Your task to perform on an android device: Show me productivity apps on the Play Store Image 0: 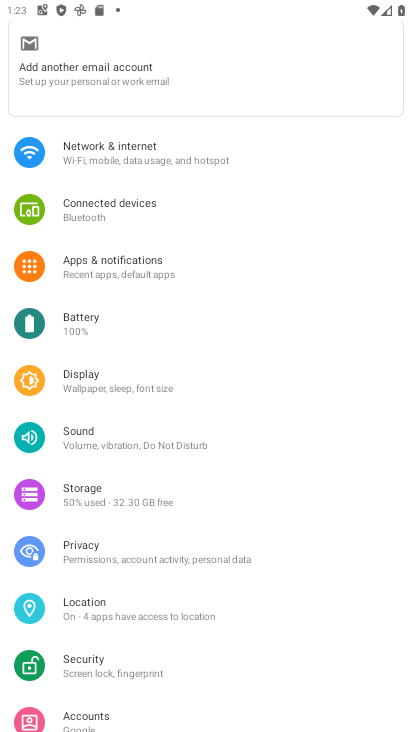
Step 0: press home button
Your task to perform on an android device: Show me productivity apps on the Play Store Image 1: 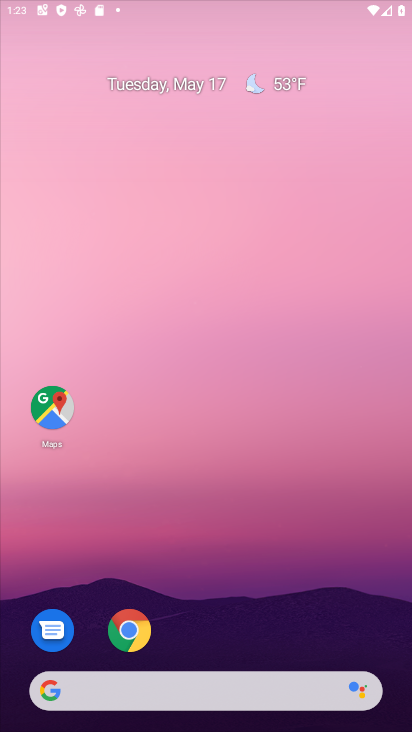
Step 1: drag from (176, 412) to (116, 3)
Your task to perform on an android device: Show me productivity apps on the Play Store Image 2: 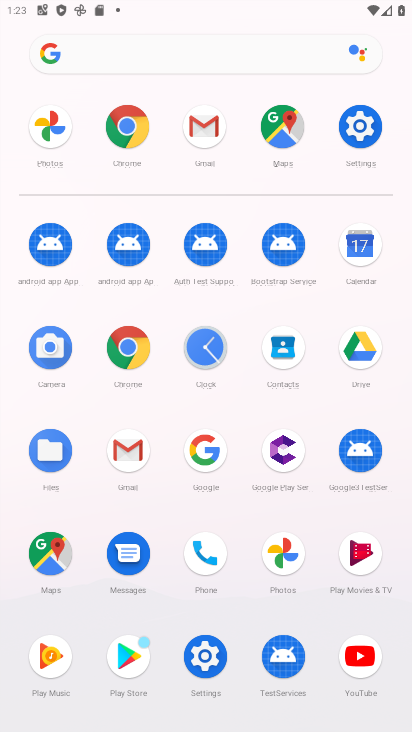
Step 2: drag from (168, 526) to (180, 380)
Your task to perform on an android device: Show me productivity apps on the Play Store Image 3: 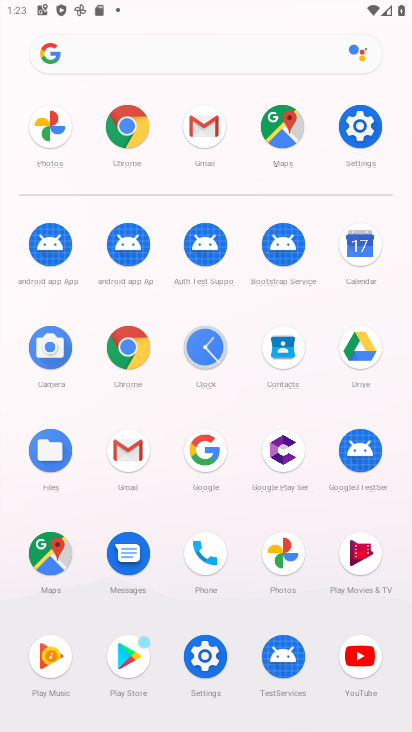
Step 3: click (138, 658)
Your task to perform on an android device: Show me productivity apps on the Play Store Image 4: 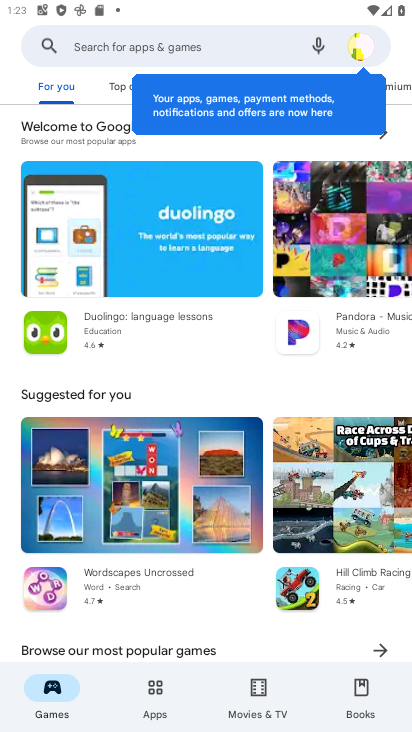
Step 4: click (108, 53)
Your task to perform on an android device: Show me productivity apps on the Play Store Image 5: 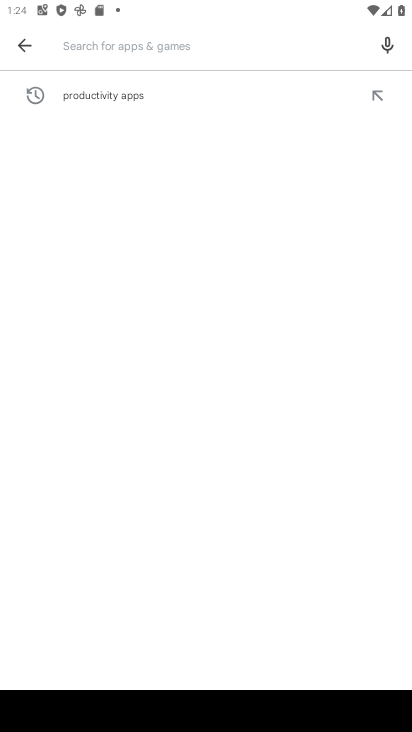
Step 5: click (106, 110)
Your task to perform on an android device: Show me productivity apps on the Play Store Image 6: 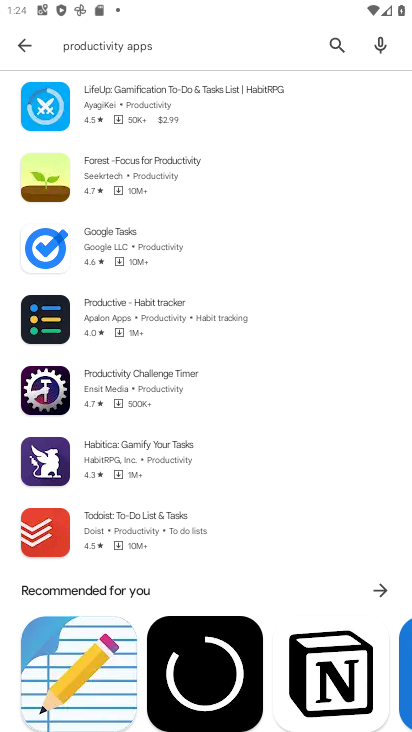
Step 6: task complete